Your task to perform on an android device: Open privacy settings Image 0: 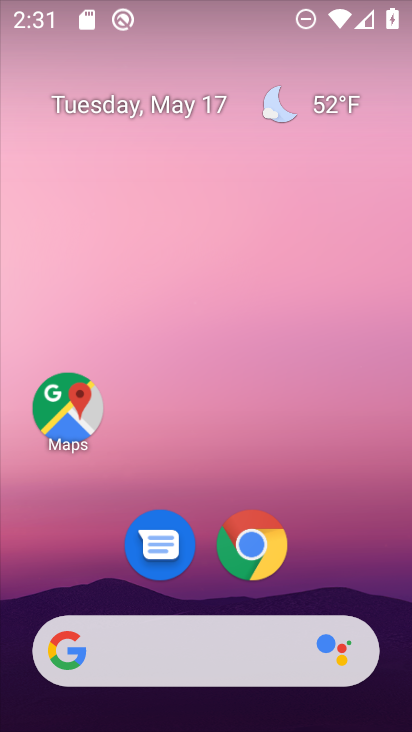
Step 0: drag from (344, 562) to (359, 118)
Your task to perform on an android device: Open privacy settings Image 1: 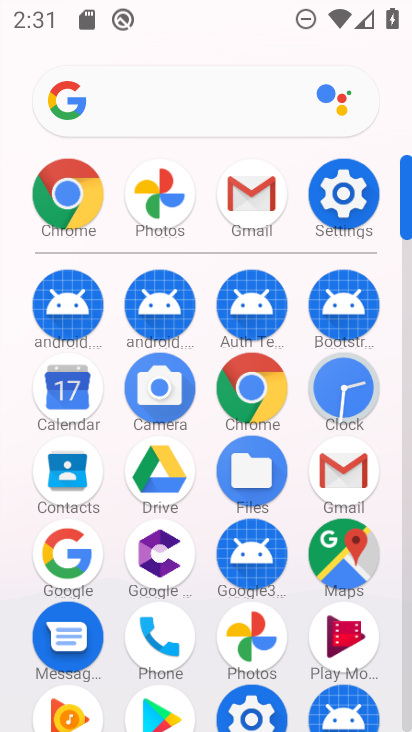
Step 1: click (365, 207)
Your task to perform on an android device: Open privacy settings Image 2: 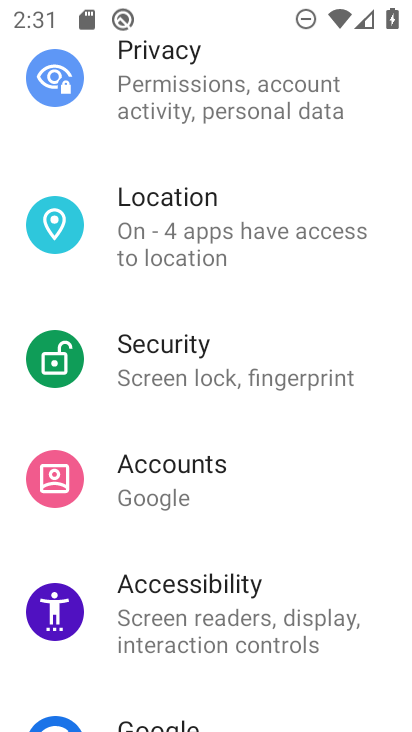
Step 2: drag from (355, 530) to (357, 465)
Your task to perform on an android device: Open privacy settings Image 3: 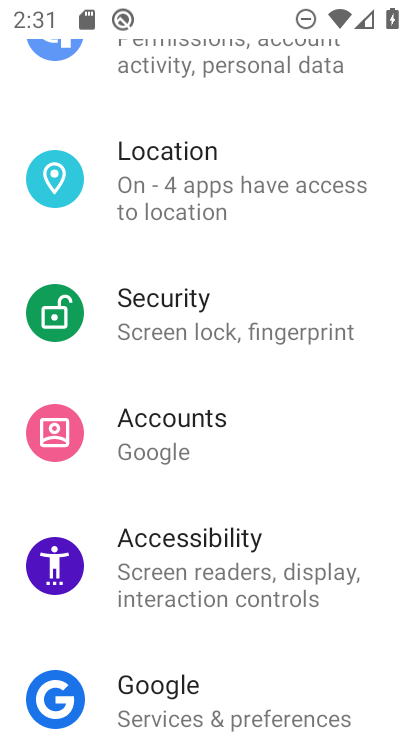
Step 3: drag from (346, 543) to (355, 436)
Your task to perform on an android device: Open privacy settings Image 4: 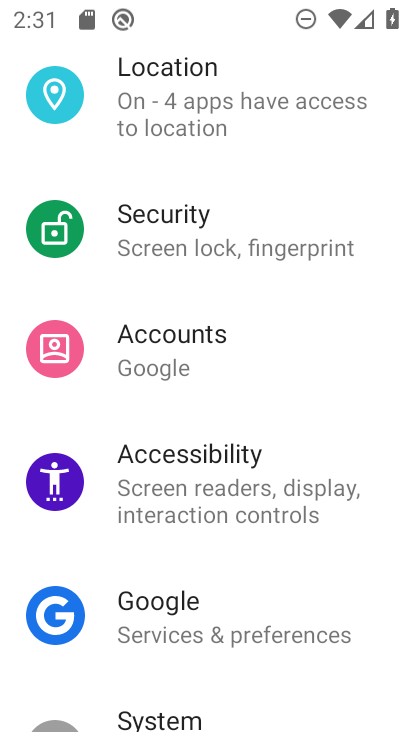
Step 4: drag from (344, 564) to (348, 469)
Your task to perform on an android device: Open privacy settings Image 5: 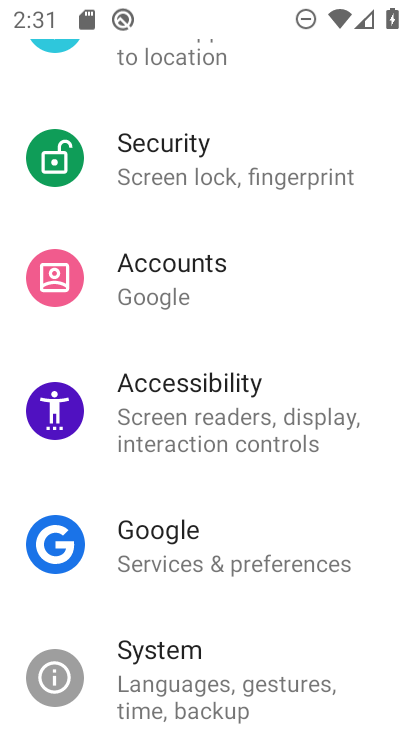
Step 5: drag from (325, 616) to (334, 514)
Your task to perform on an android device: Open privacy settings Image 6: 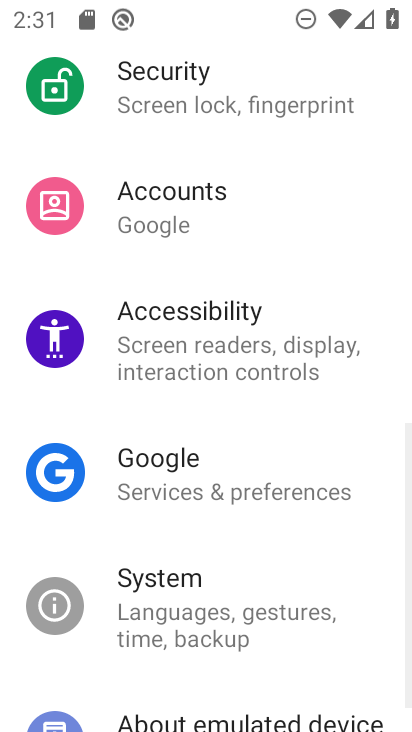
Step 6: drag from (326, 672) to (322, 519)
Your task to perform on an android device: Open privacy settings Image 7: 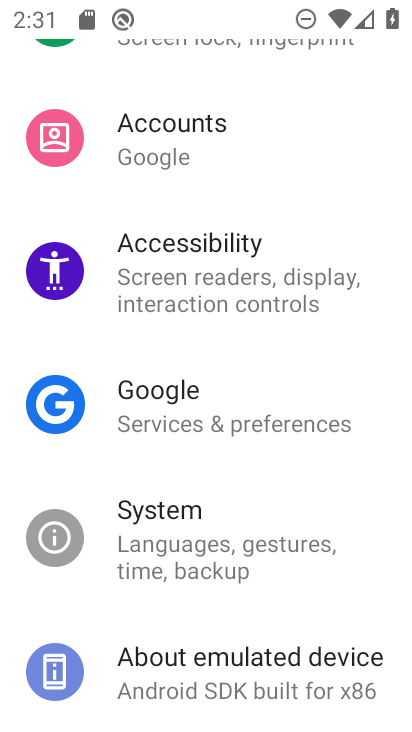
Step 7: drag from (341, 489) to (333, 595)
Your task to perform on an android device: Open privacy settings Image 8: 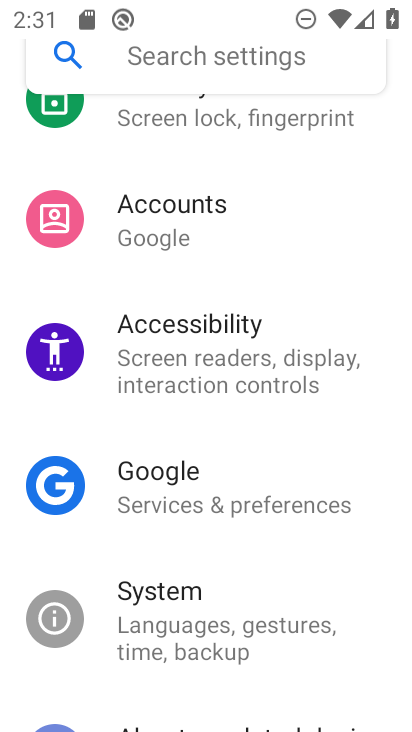
Step 8: drag from (343, 421) to (344, 543)
Your task to perform on an android device: Open privacy settings Image 9: 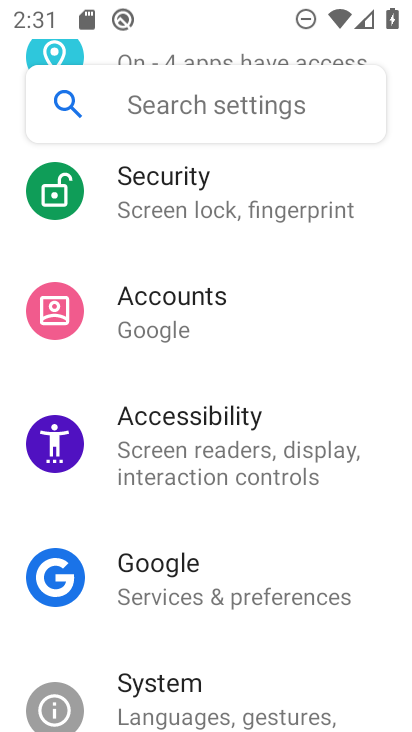
Step 9: drag from (357, 385) to (354, 508)
Your task to perform on an android device: Open privacy settings Image 10: 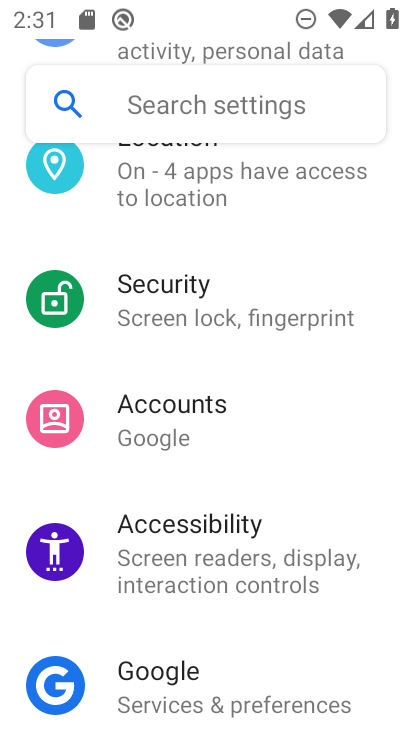
Step 10: drag from (371, 405) to (364, 504)
Your task to perform on an android device: Open privacy settings Image 11: 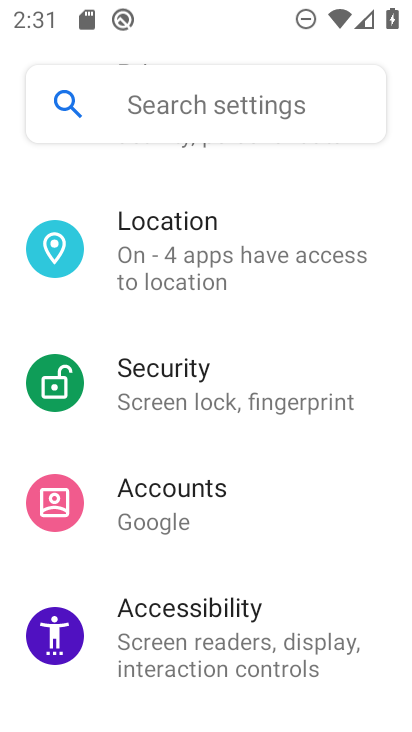
Step 11: drag from (367, 370) to (355, 452)
Your task to perform on an android device: Open privacy settings Image 12: 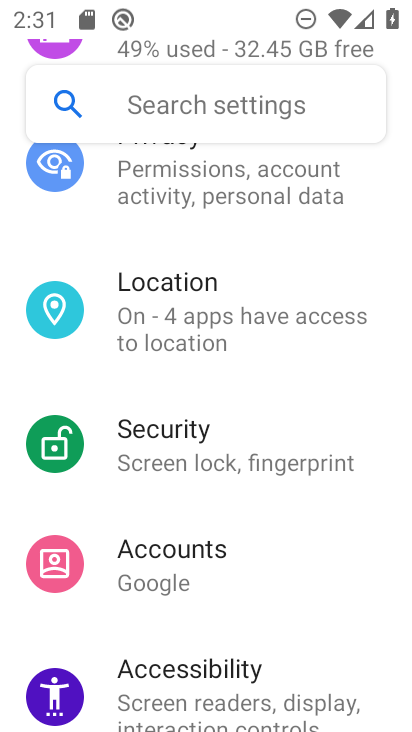
Step 12: drag from (354, 378) to (355, 461)
Your task to perform on an android device: Open privacy settings Image 13: 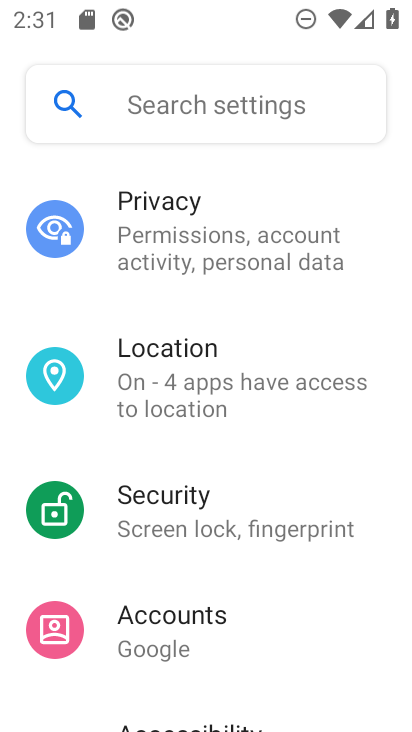
Step 13: drag from (353, 314) to (351, 398)
Your task to perform on an android device: Open privacy settings Image 14: 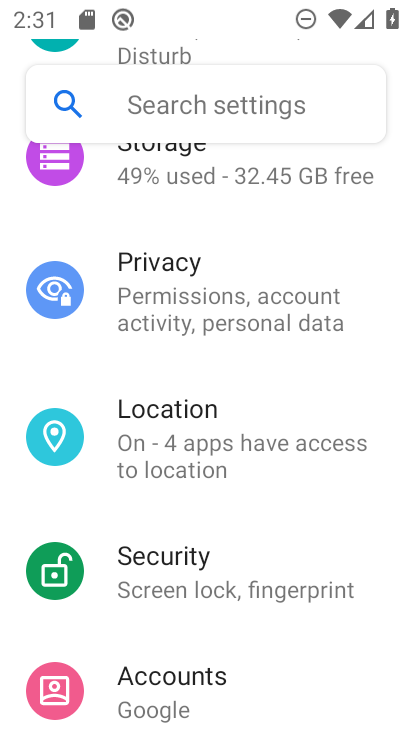
Step 14: drag from (367, 279) to (358, 385)
Your task to perform on an android device: Open privacy settings Image 15: 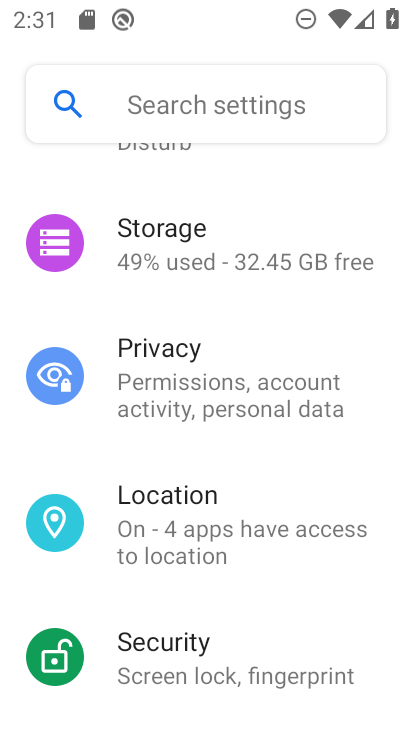
Step 15: drag from (373, 297) to (359, 415)
Your task to perform on an android device: Open privacy settings Image 16: 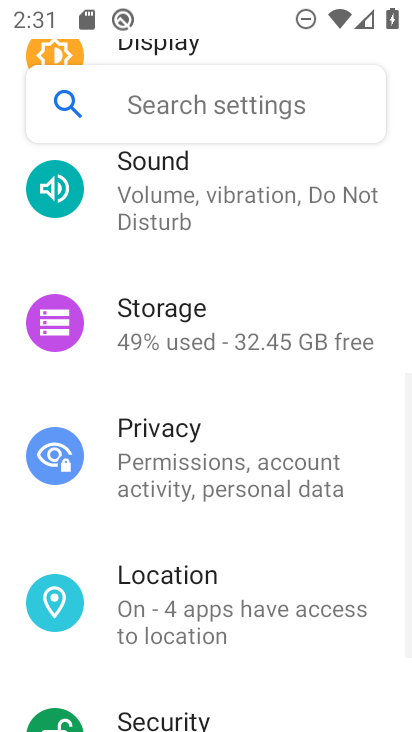
Step 16: drag from (371, 272) to (357, 421)
Your task to perform on an android device: Open privacy settings Image 17: 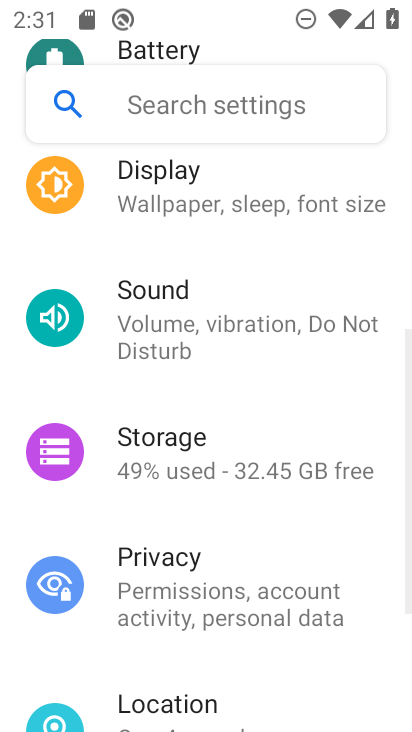
Step 17: drag from (362, 245) to (341, 414)
Your task to perform on an android device: Open privacy settings Image 18: 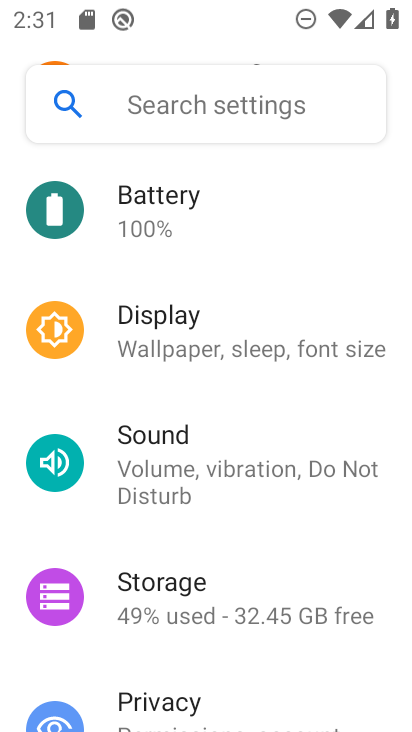
Step 18: drag from (311, 270) to (300, 428)
Your task to perform on an android device: Open privacy settings Image 19: 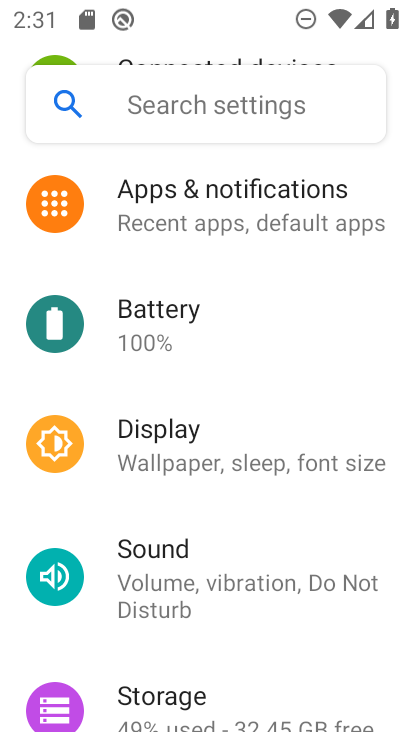
Step 19: drag from (305, 298) to (307, 464)
Your task to perform on an android device: Open privacy settings Image 20: 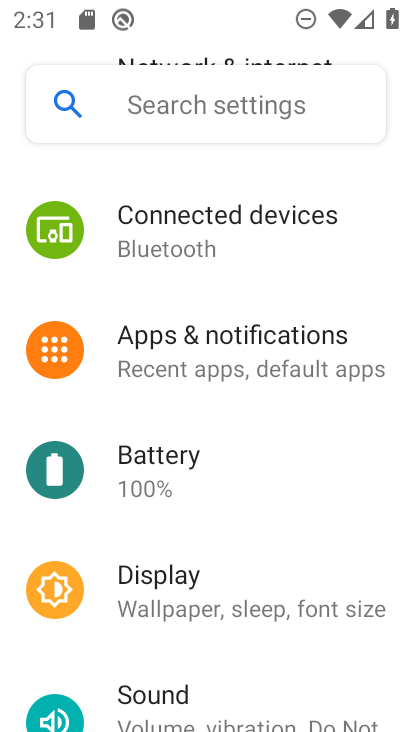
Step 20: drag from (300, 262) to (308, 466)
Your task to perform on an android device: Open privacy settings Image 21: 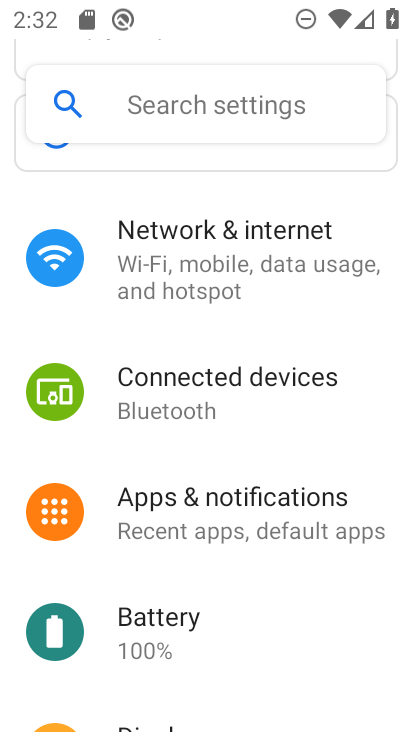
Step 21: drag from (266, 600) to (267, 515)
Your task to perform on an android device: Open privacy settings Image 22: 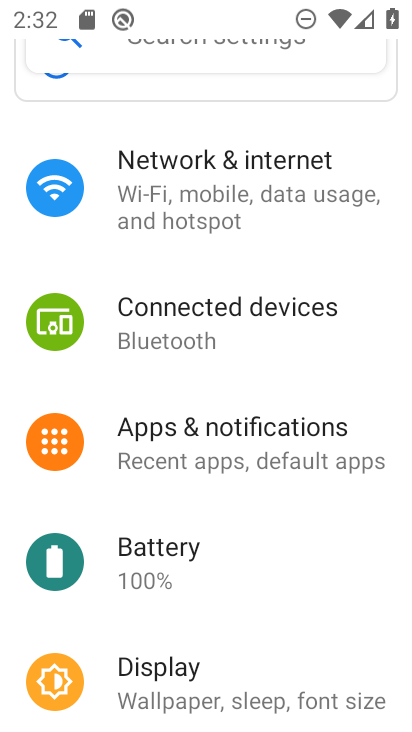
Step 22: drag from (261, 611) to (252, 444)
Your task to perform on an android device: Open privacy settings Image 23: 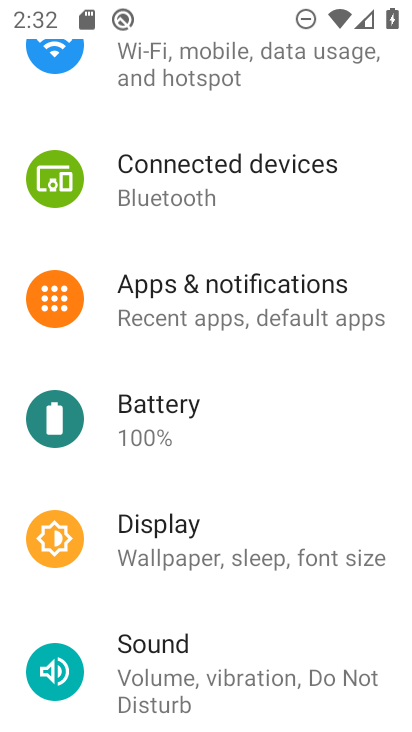
Step 23: drag from (237, 640) to (235, 468)
Your task to perform on an android device: Open privacy settings Image 24: 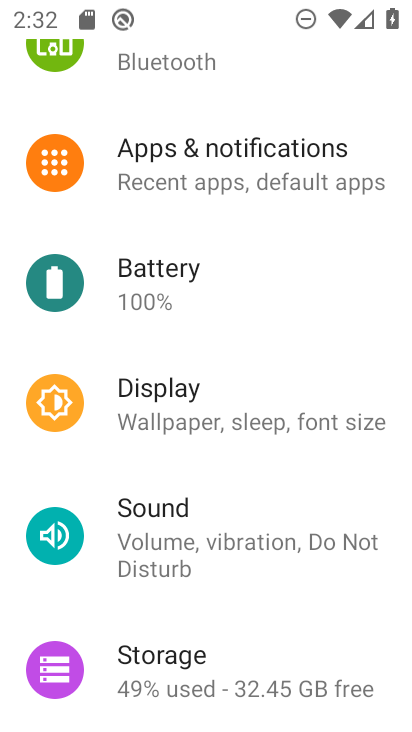
Step 24: drag from (229, 636) to (236, 489)
Your task to perform on an android device: Open privacy settings Image 25: 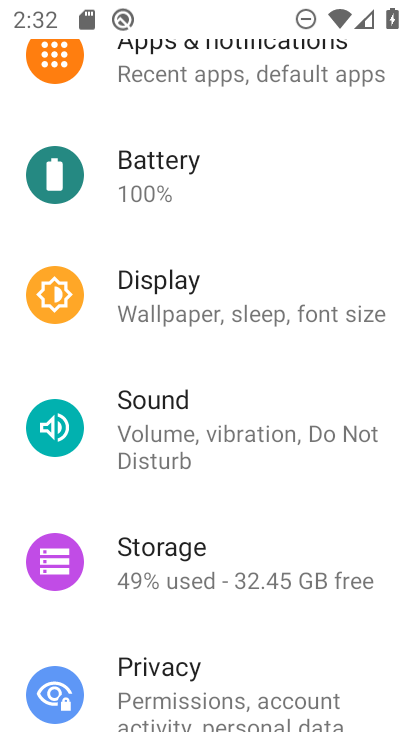
Step 25: drag from (235, 664) to (248, 516)
Your task to perform on an android device: Open privacy settings Image 26: 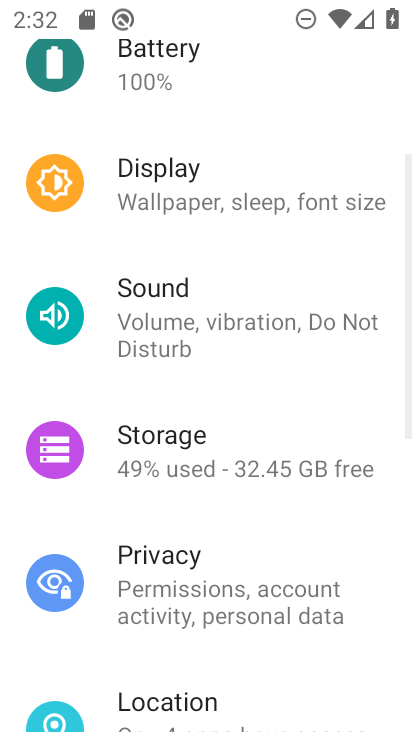
Step 26: click (241, 612)
Your task to perform on an android device: Open privacy settings Image 27: 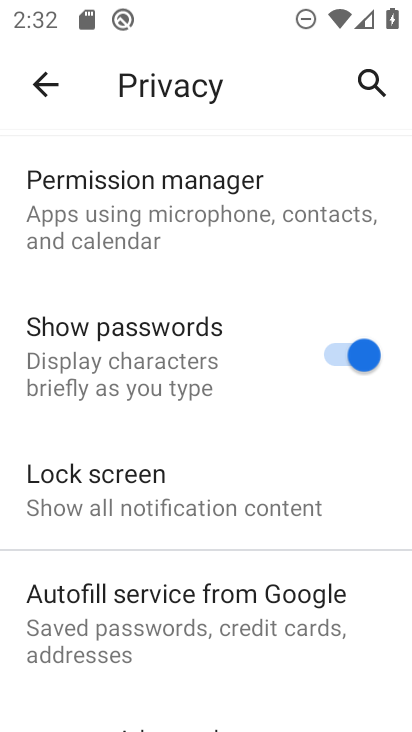
Step 27: task complete